Your task to perform on an android device: Set the phone to "Do not disturb". Image 0: 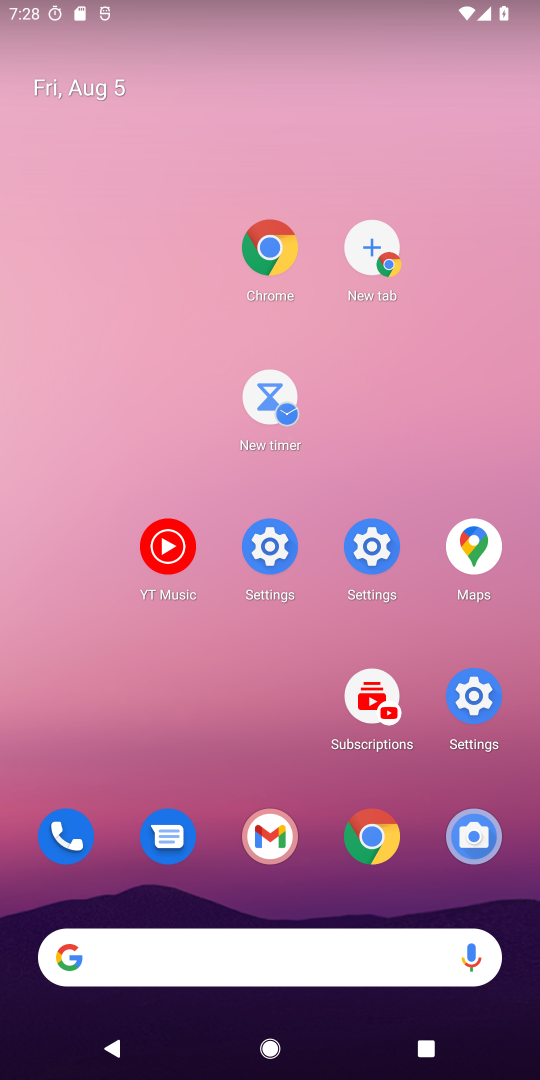
Step 0: click (520, 832)
Your task to perform on an android device: Set the phone to "Do not disturb". Image 1: 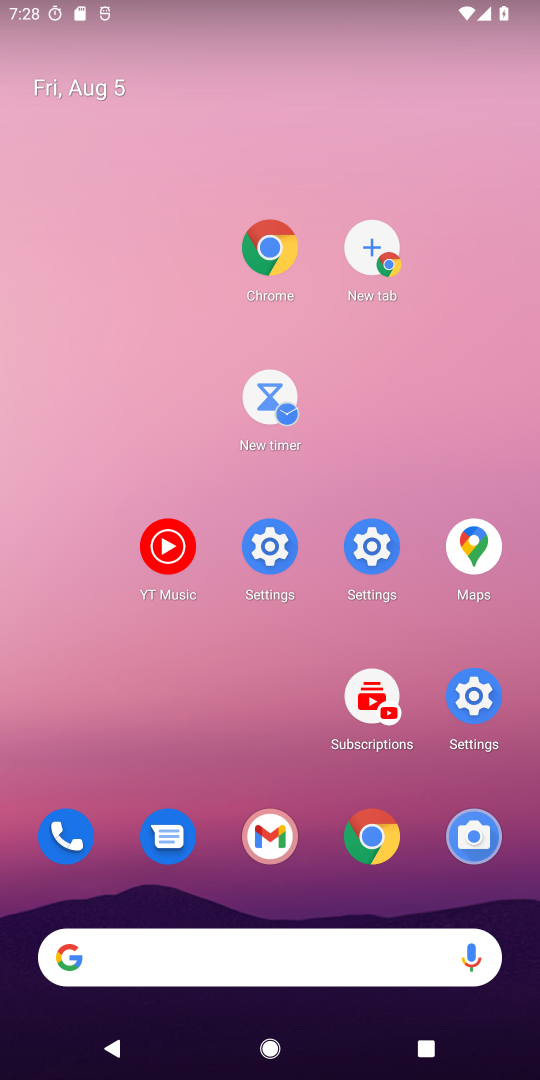
Step 1: drag from (125, 587) to (45, 345)
Your task to perform on an android device: Set the phone to "Do not disturb". Image 2: 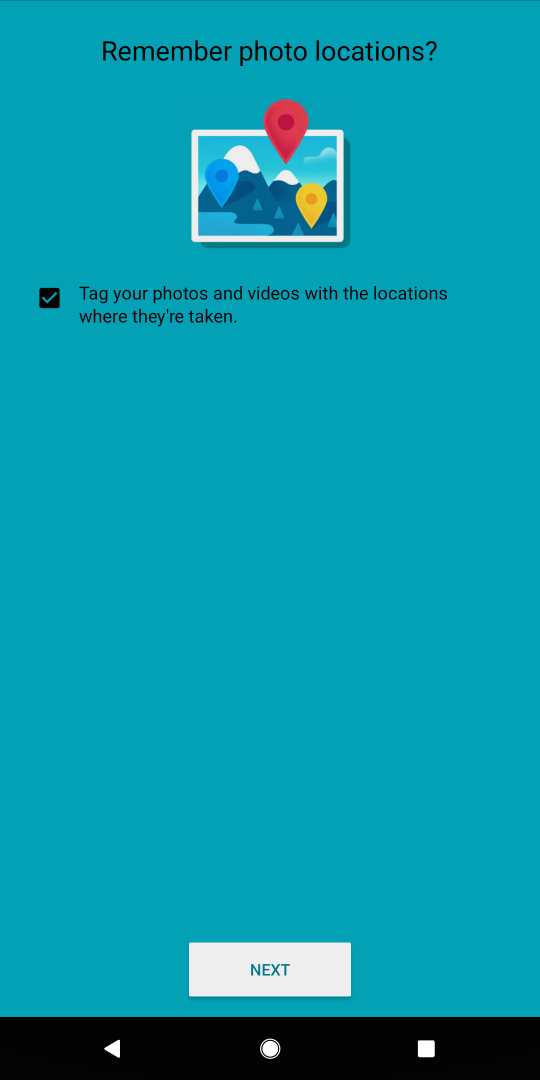
Step 2: drag from (242, 720) to (180, 190)
Your task to perform on an android device: Set the phone to "Do not disturb". Image 3: 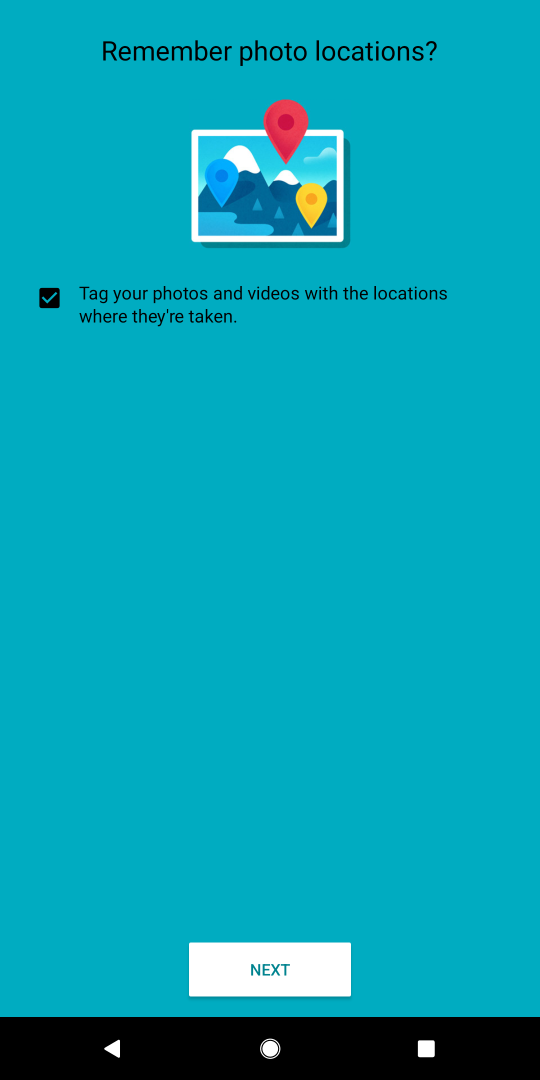
Step 3: press back button
Your task to perform on an android device: Set the phone to "Do not disturb". Image 4: 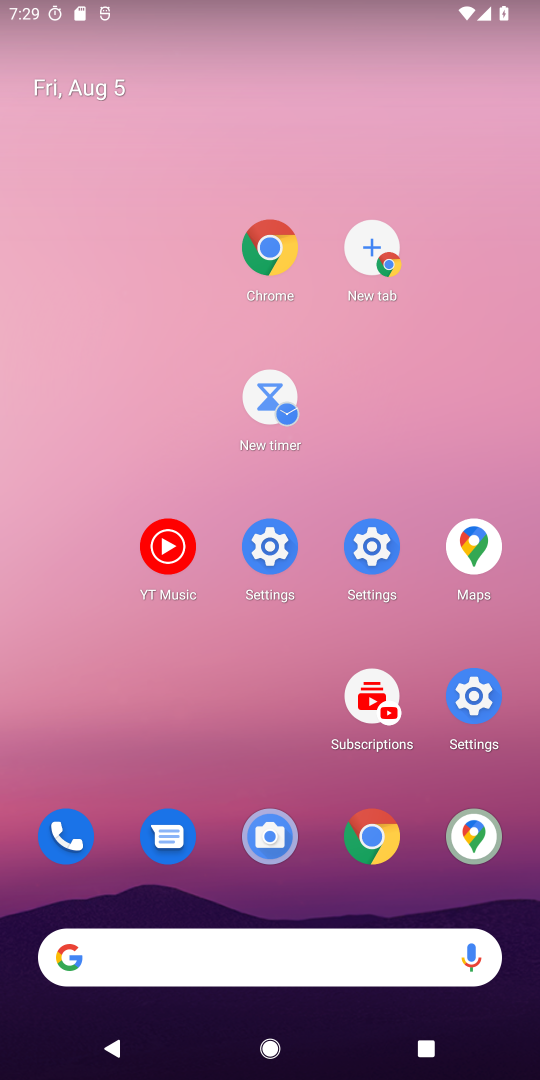
Step 4: drag from (183, 794) to (34, 153)
Your task to perform on an android device: Set the phone to "Do not disturb". Image 5: 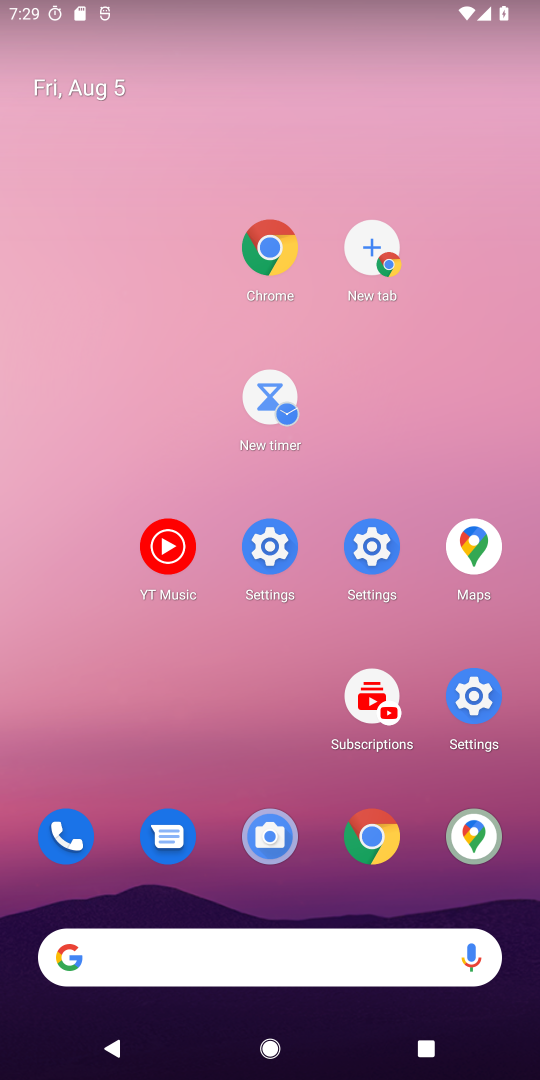
Step 5: drag from (230, 898) to (138, 362)
Your task to perform on an android device: Set the phone to "Do not disturb". Image 6: 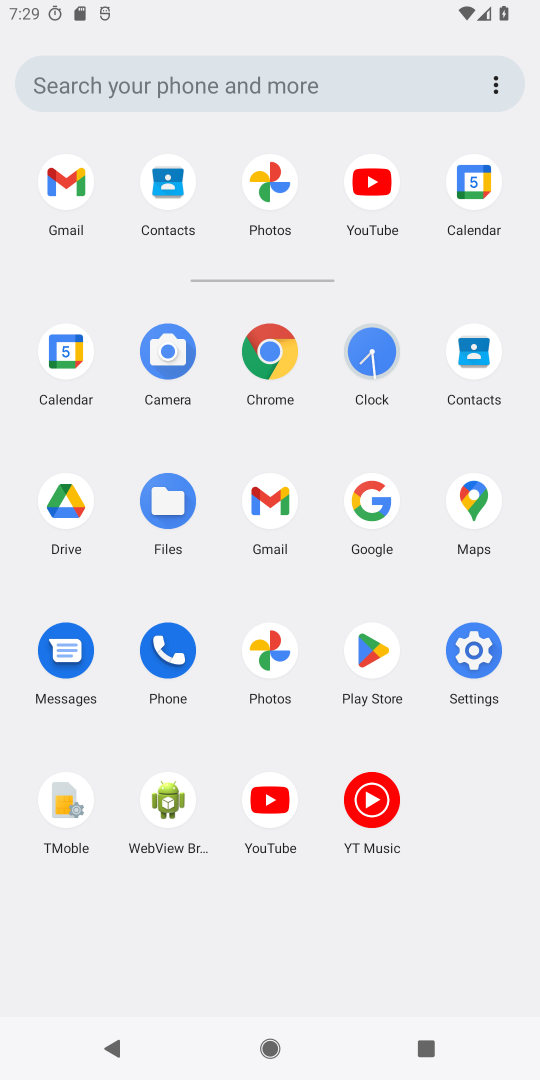
Step 6: click (467, 658)
Your task to perform on an android device: Set the phone to "Do not disturb". Image 7: 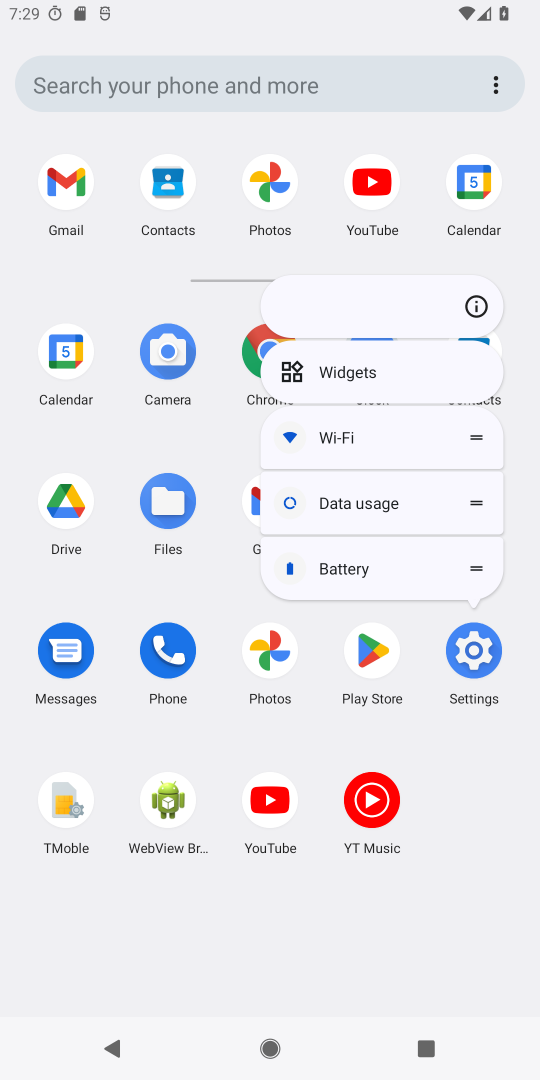
Step 7: click (467, 658)
Your task to perform on an android device: Set the phone to "Do not disturb". Image 8: 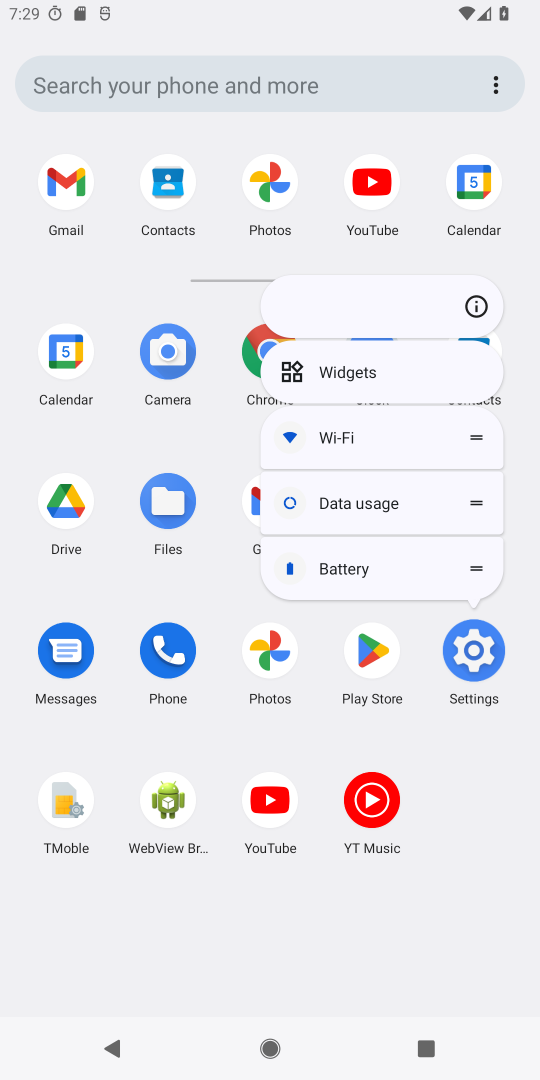
Step 8: click (469, 658)
Your task to perform on an android device: Set the phone to "Do not disturb". Image 9: 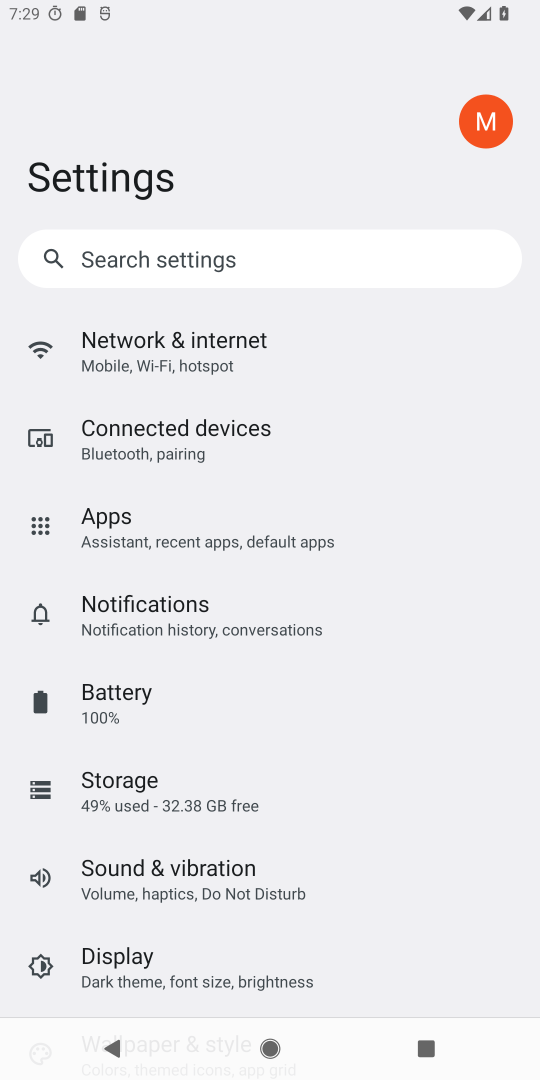
Step 9: drag from (169, 833) to (113, 403)
Your task to perform on an android device: Set the phone to "Do not disturb". Image 10: 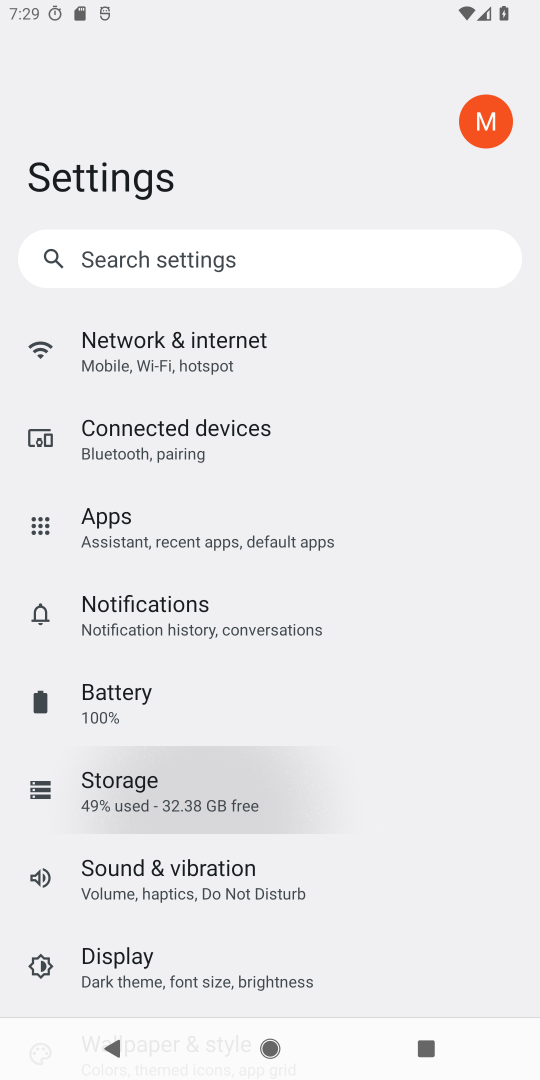
Step 10: drag from (162, 727) to (180, 315)
Your task to perform on an android device: Set the phone to "Do not disturb". Image 11: 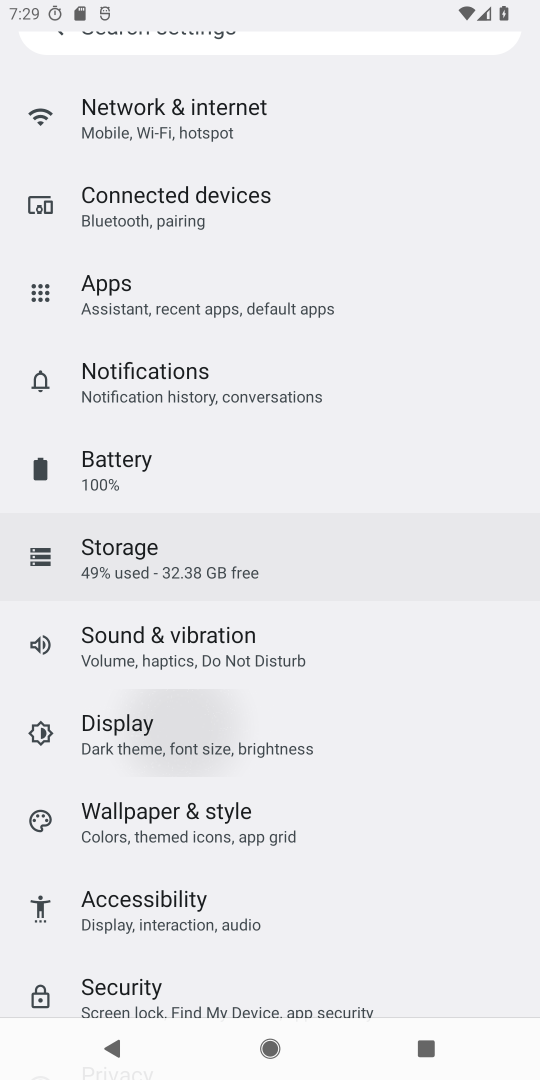
Step 11: drag from (212, 596) to (212, 232)
Your task to perform on an android device: Set the phone to "Do not disturb". Image 12: 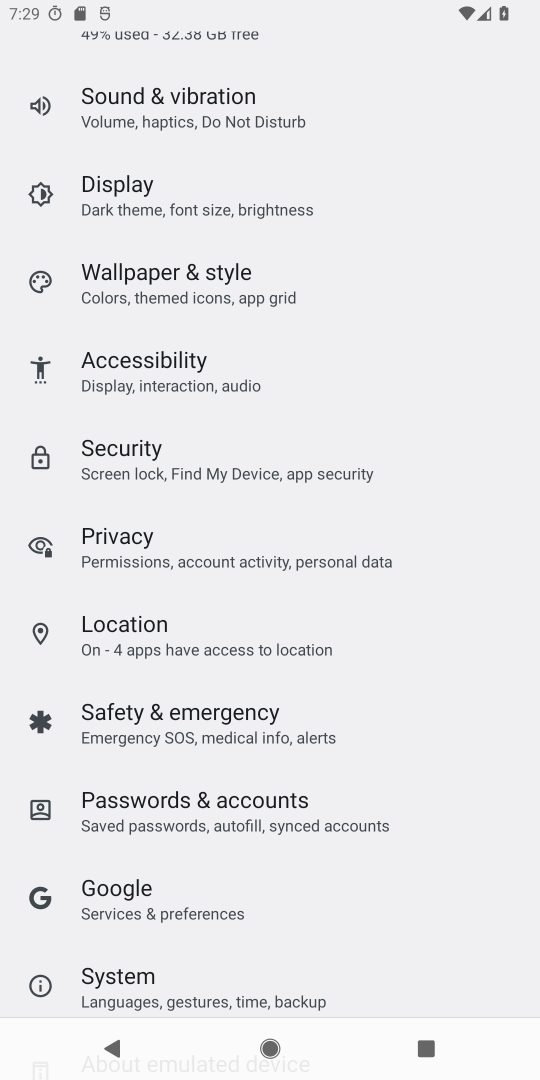
Step 12: drag from (295, 733) to (207, 298)
Your task to perform on an android device: Set the phone to "Do not disturb". Image 13: 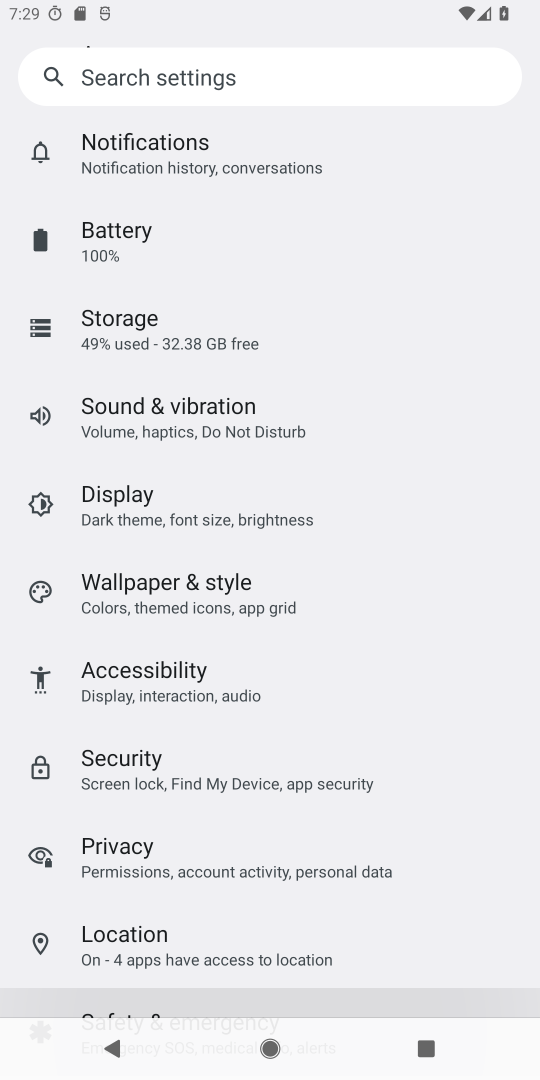
Step 13: drag from (233, 658) to (233, 188)
Your task to perform on an android device: Set the phone to "Do not disturb". Image 14: 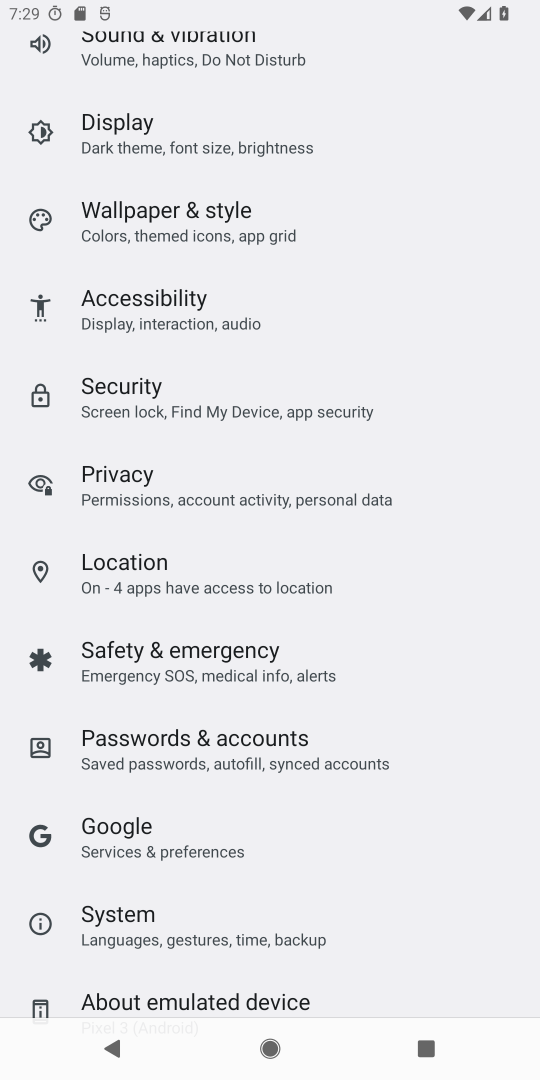
Step 14: drag from (229, 321) to (195, 190)
Your task to perform on an android device: Set the phone to "Do not disturb". Image 15: 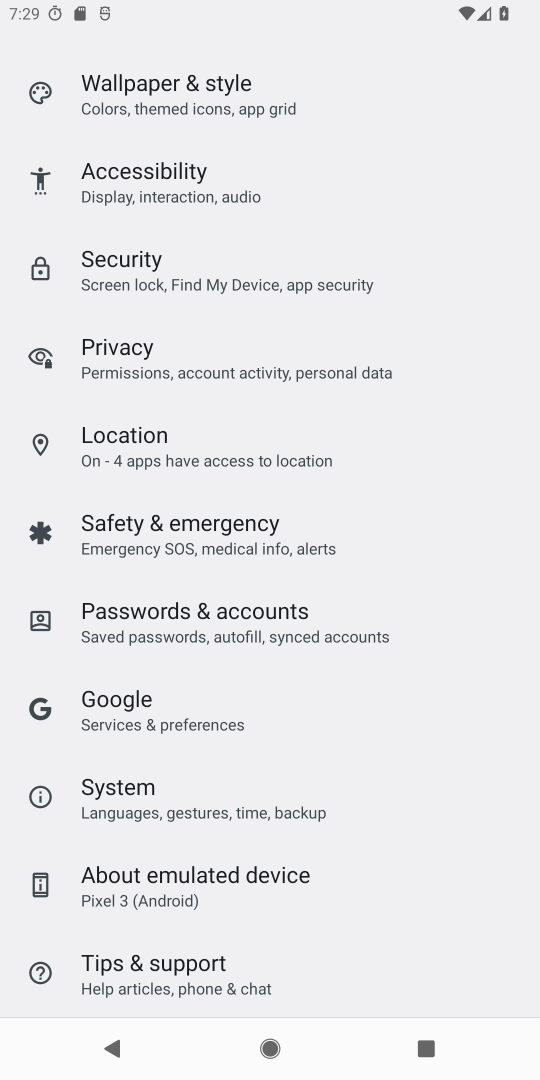
Step 15: drag from (177, 503) to (107, 215)
Your task to perform on an android device: Set the phone to "Do not disturb". Image 16: 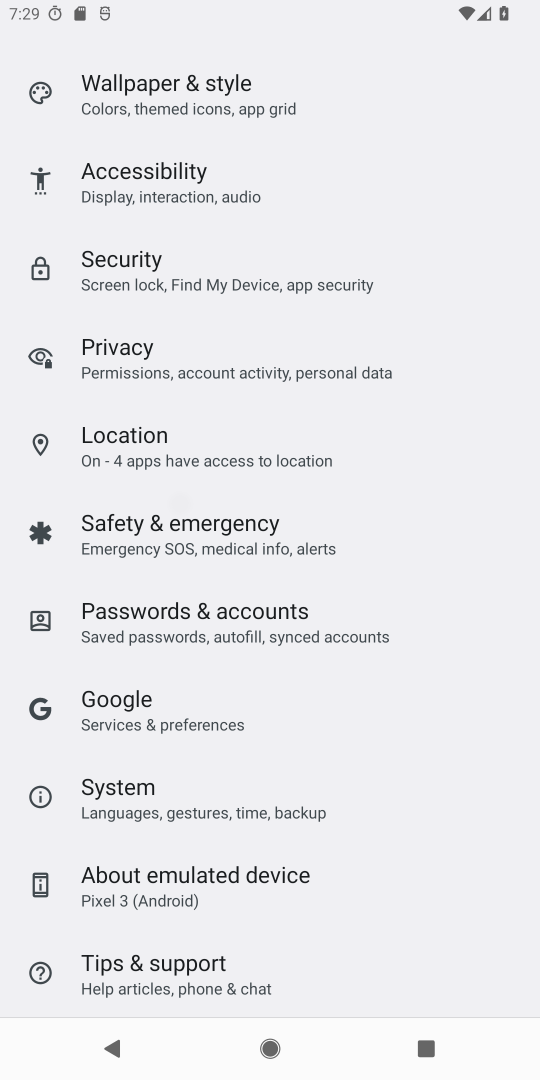
Step 16: drag from (218, 811) to (179, 344)
Your task to perform on an android device: Set the phone to "Do not disturb". Image 17: 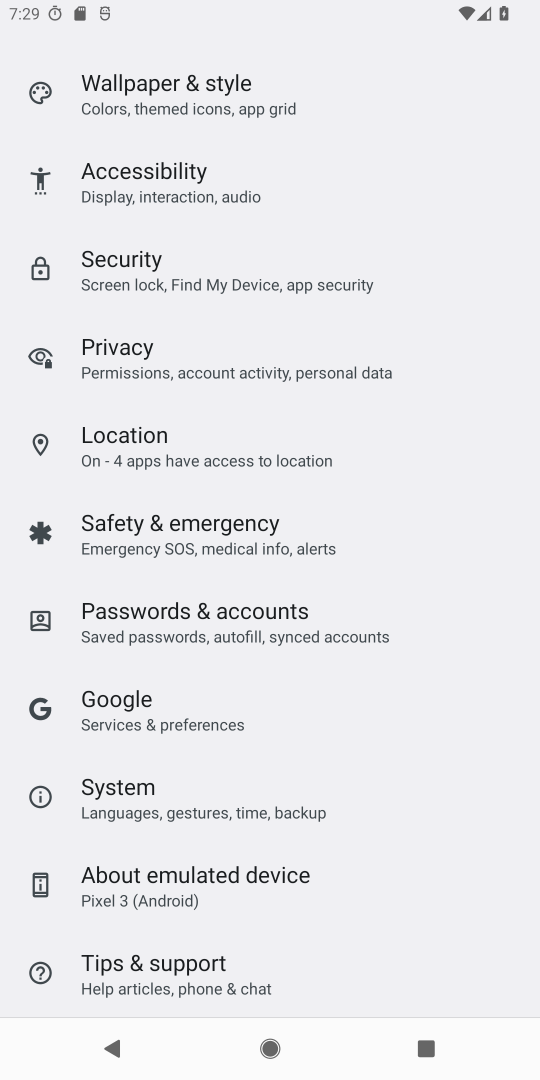
Step 17: drag from (208, 777) to (168, 340)
Your task to perform on an android device: Set the phone to "Do not disturb". Image 18: 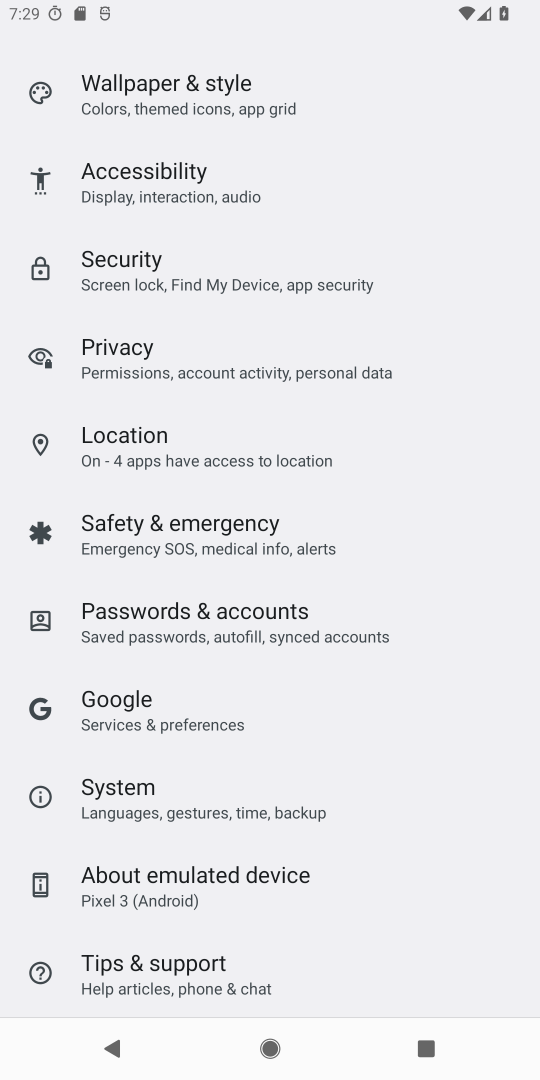
Step 18: drag from (164, 408) to (208, 747)
Your task to perform on an android device: Set the phone to "Do not disturb". Image 19: 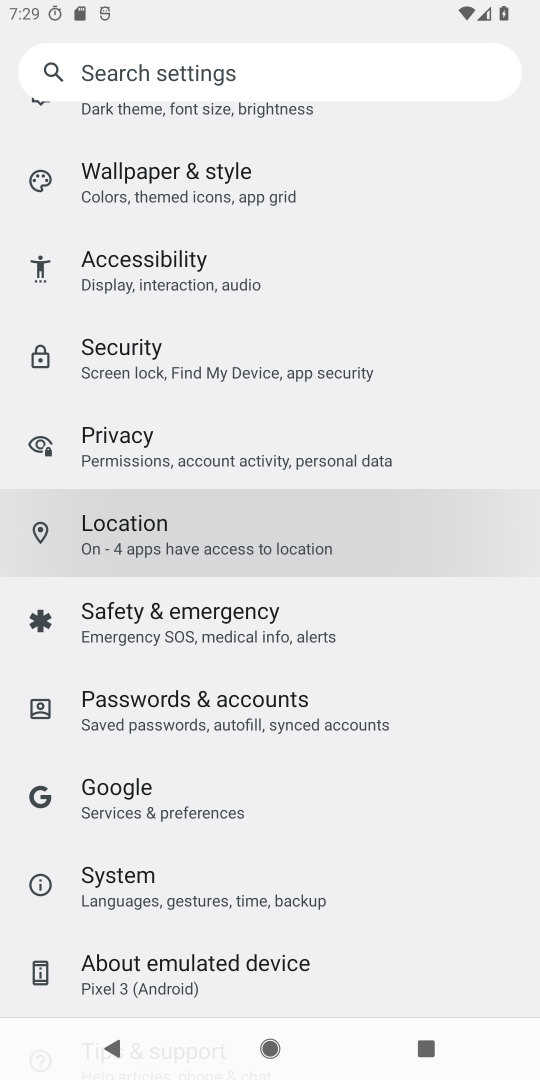
Step 19: drag from (156, 519) to (200, 797)
Your task to perform on an android device: Set the phone to "Do not disturb". Image 20: 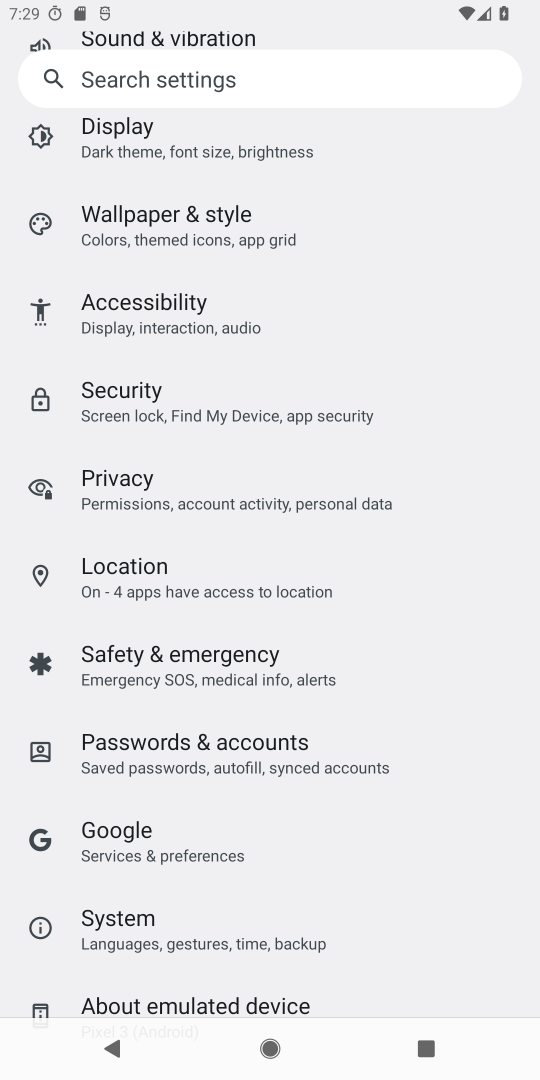
Step 20: drag from (179, 398) to (240, 886)
Your task to perform on an android device: Set the phone to "Do not disturb". Image 21: 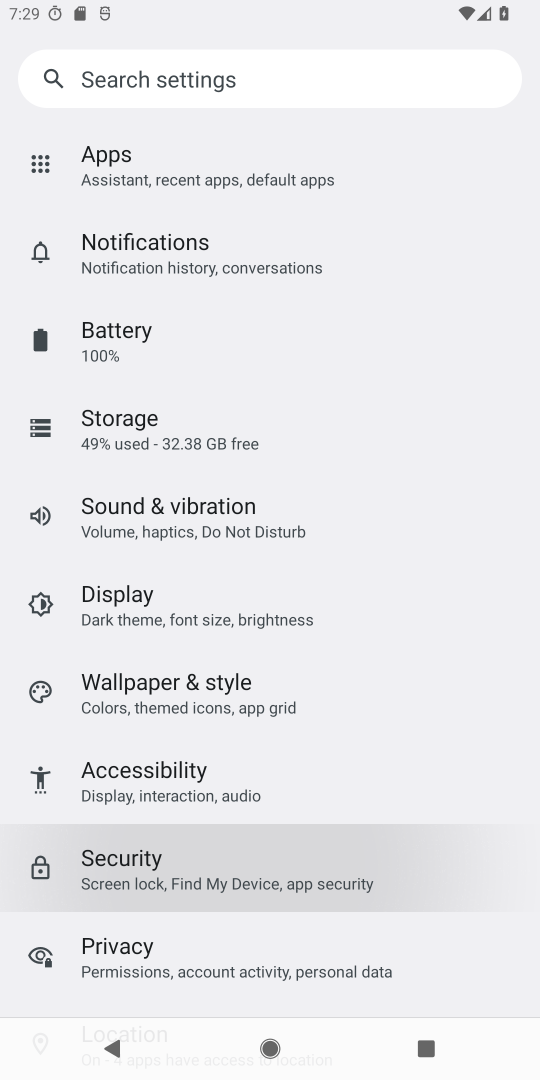
Step 21: drag from (145, 472) to (210, 904)
Your task to perform on an android device: Set the phone to "Do not disturb". Image 22: 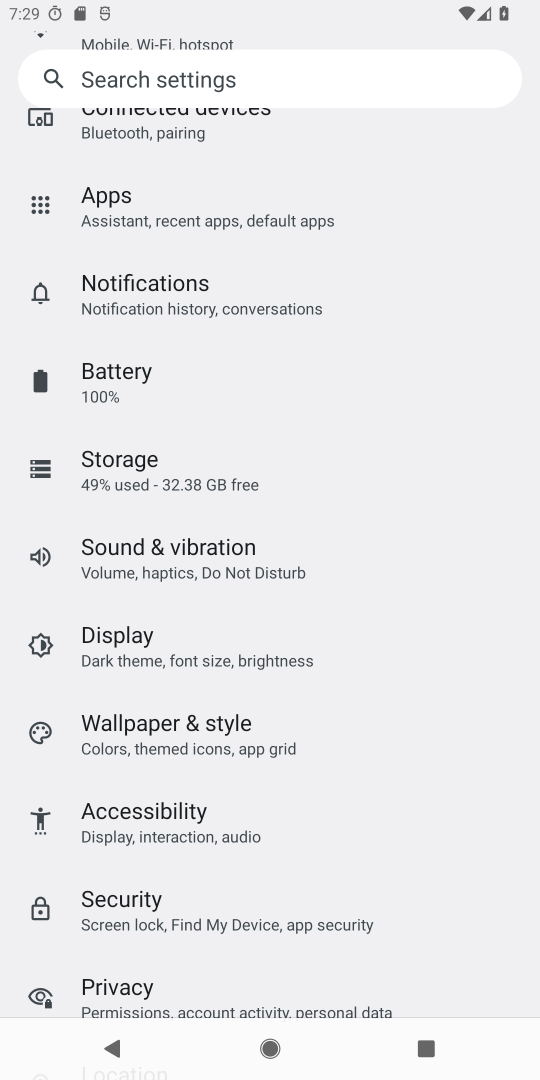
Step 22: drag from (155, 528) to (318, 959)
Your task to perform on an android device: Set the phone to "Do not disturb". Image 23: 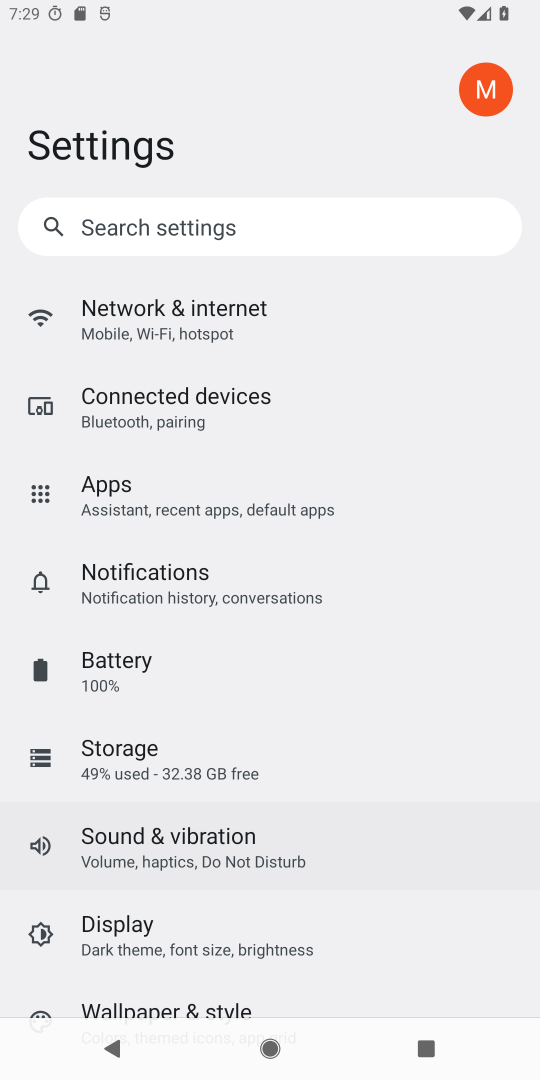
Step 23: drag from (236, 544) to (270, 778)
Your task to perform on an android device: Set the phone to "Do not disturb". Image 24: 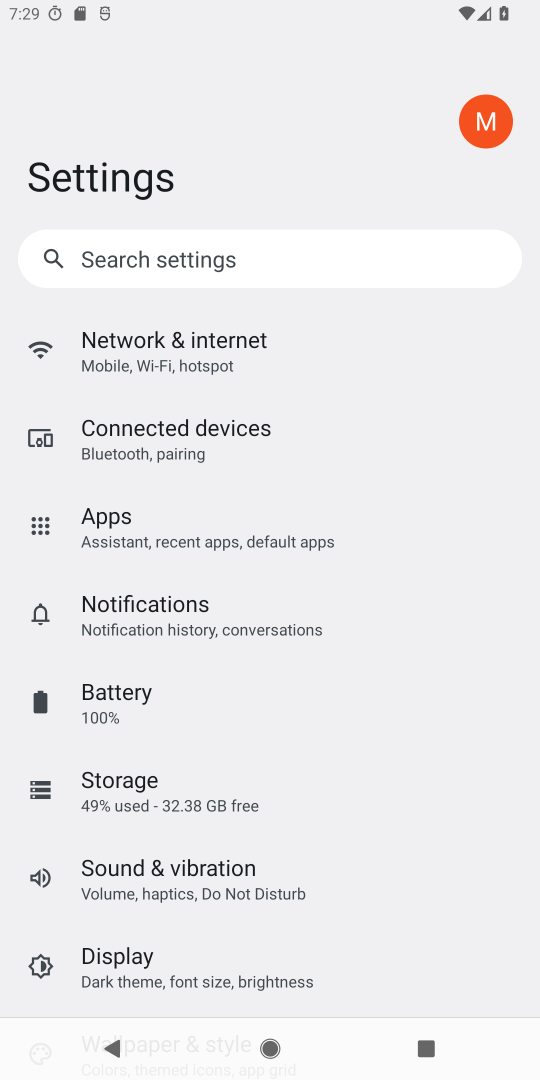
Step 24: drag from (228, 866) to (235, 529)
Your task to perform on an android device: Set the phone to "Do not disturb". Image 25: 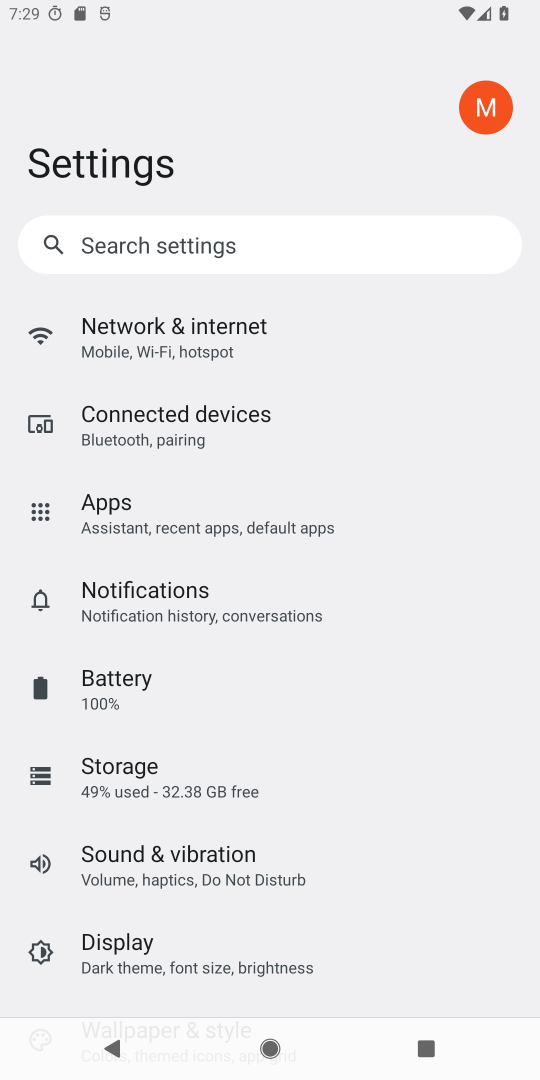
Step 25: drag from (196, 758) to (180, 382)
Your task to perform on an android device: Set the phone to "Do not disturb". Image 26: 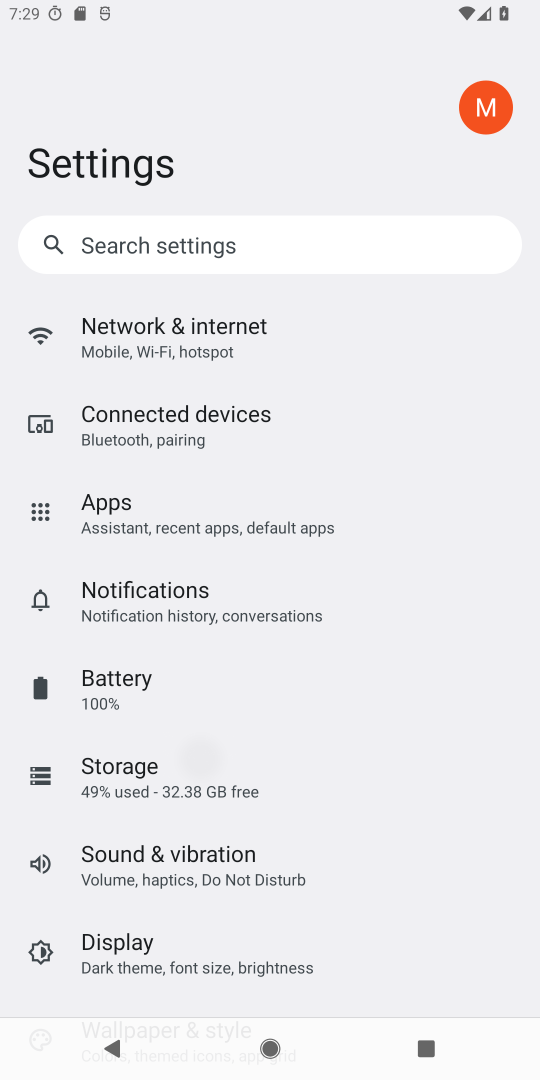
Step 26: drag from (201, 683) to (184, 452)
Your task to perform on an android device: Set the phone to "Do not disturb". Image 27: 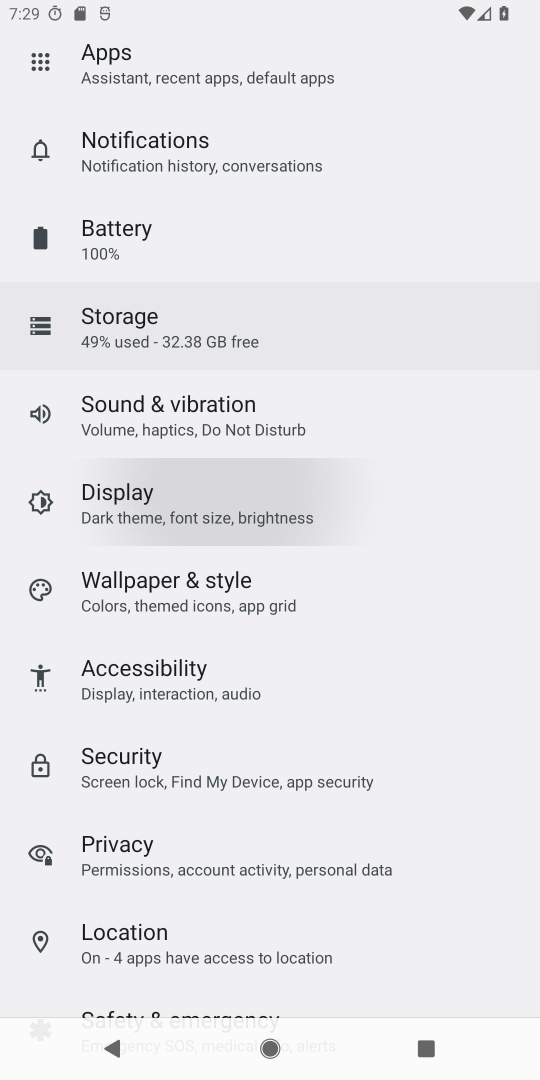
Step 27: drag from (273, 662) to (268, 362)
Your task to perform on an android device: Set the phone to "Do not disturb". Image 28: 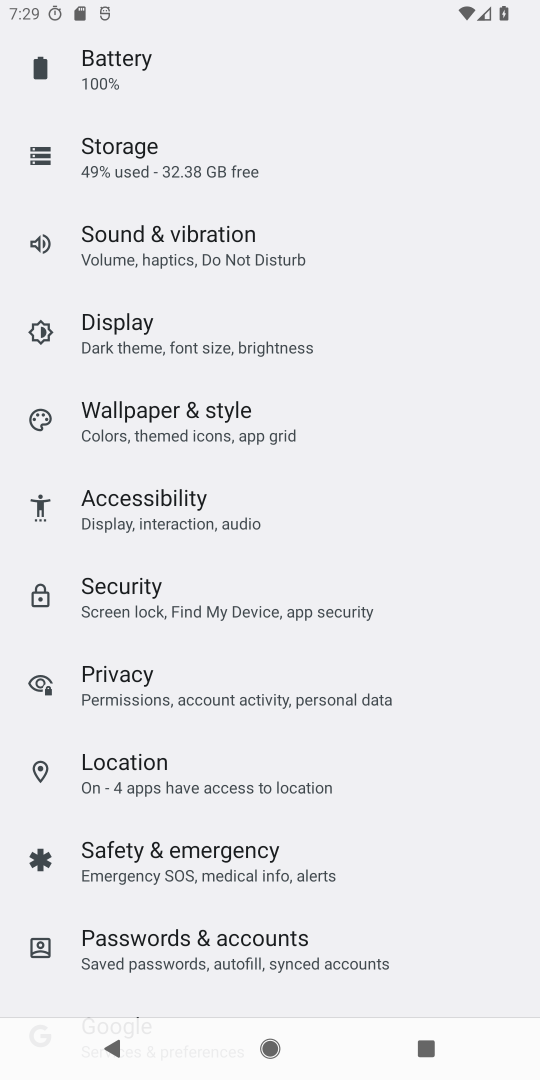
Step 28: drag from (310, 686) to (267, 416)
Your task to perform on an android device: Set the phone to "Do not disturb". Image 29: 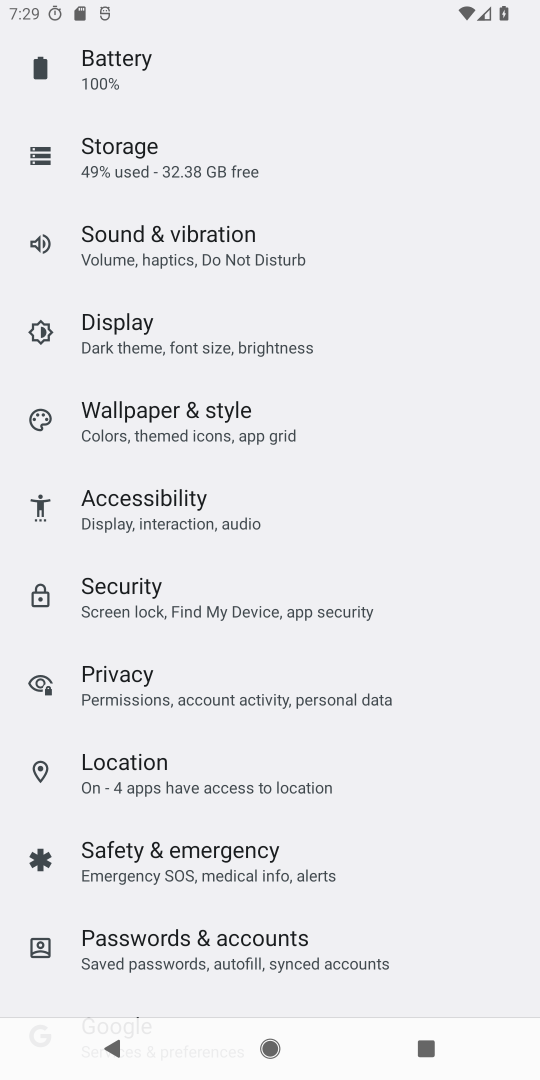
Step 29: drag from (249, 796) to (242, 359)
Your task to perform on an android device: Set the phone to "Do not disturb". Image 30: 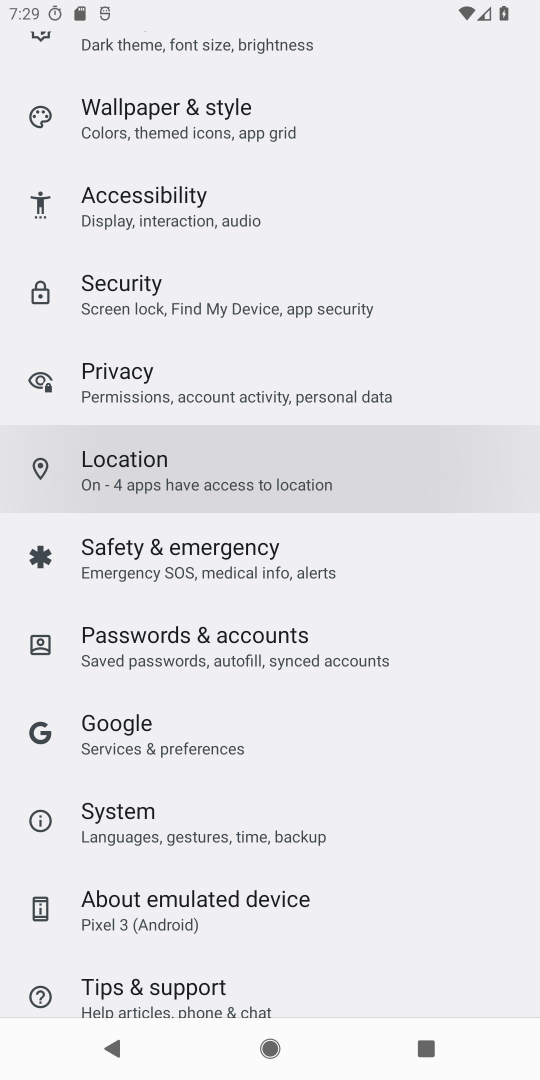
Step 30: drag from (250, 685) to (250, 334)
Your task to perform on an android device: Set the phone to "Do not disturb". Image 31: 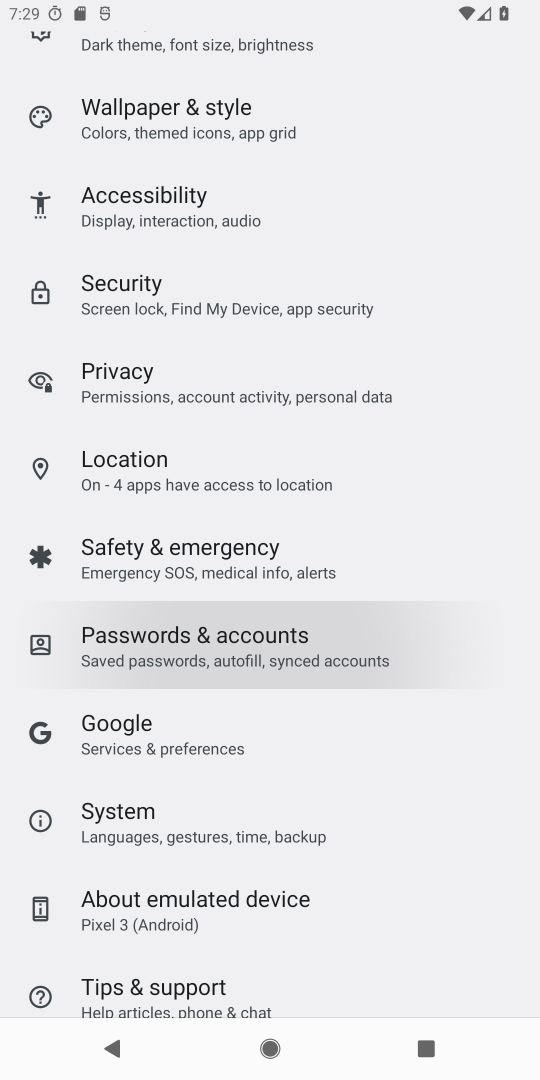
Step 31: drag from (261, 617) to (228, 413)
Your task to perform on an android device: Set the phone to "Do not disturb". Image 32: 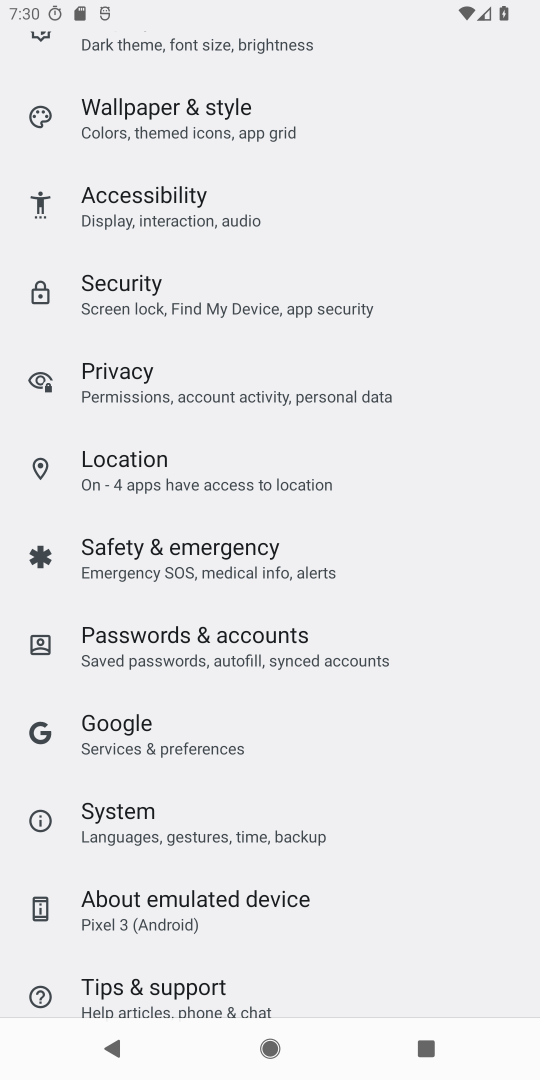
Step 32: drag from (177, 226) to (256, 713)
Your task to perform on an android device: Set the phone to "Do not disturb". Image 33: 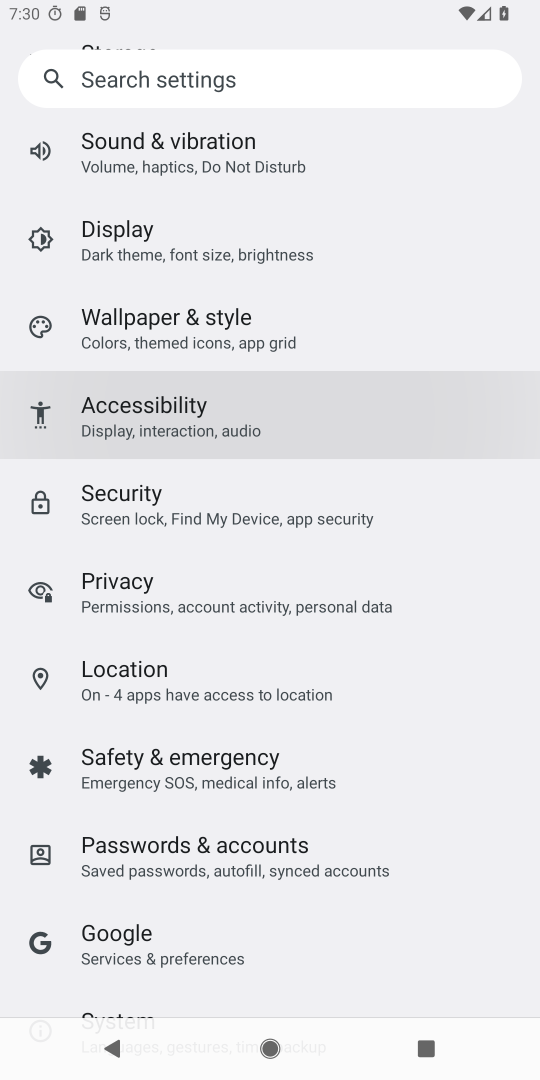
Step 33: drag from (166, 424) to (244, 764)
Your task to perform on an android device: Set the phone to "Do not disturb". Image 34: 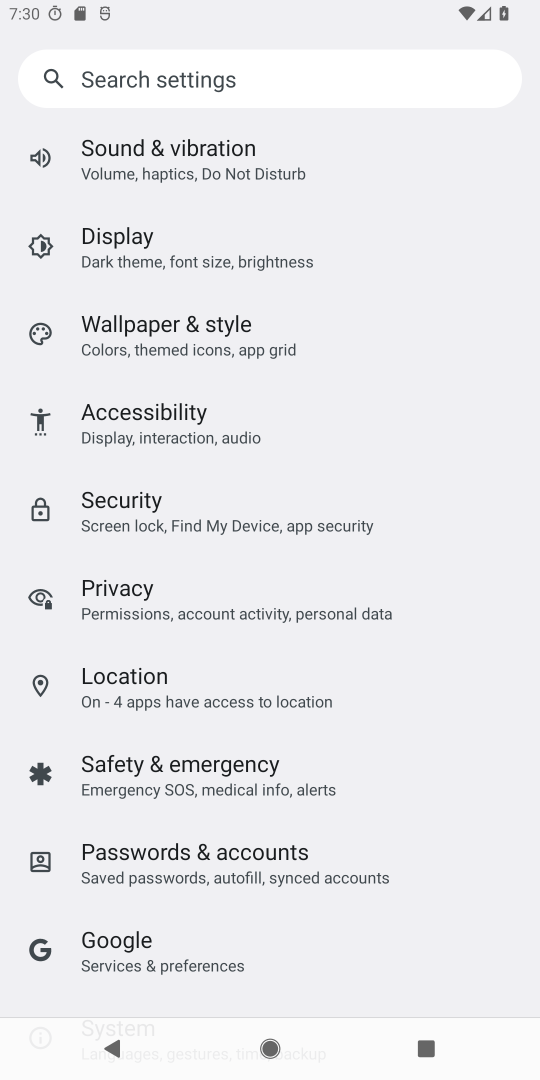
Step 34: click (130, 252)
Your task to perform on an android device: Set the phone to "Do not disturb". Image 35: 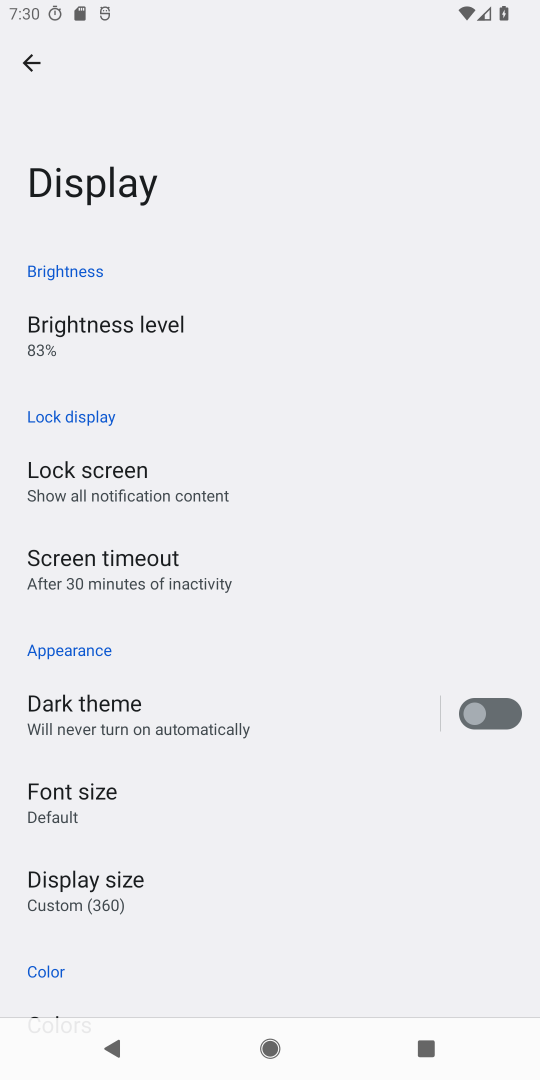
Step 35: drag from (146, 613) to (126, 288)
Your task to perform on an android device: Set the phone to "Do not disturb". Image 36: 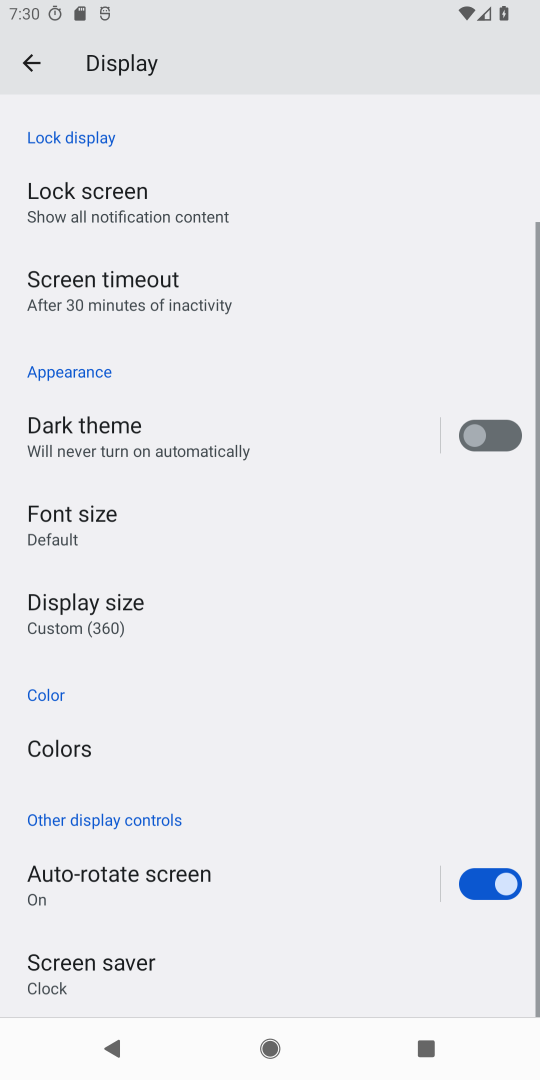
Step 36: drag from (56, 558) to (29, 358)
Your task to perform on an android device: Set the phone to "Do not disturb". Image 37: 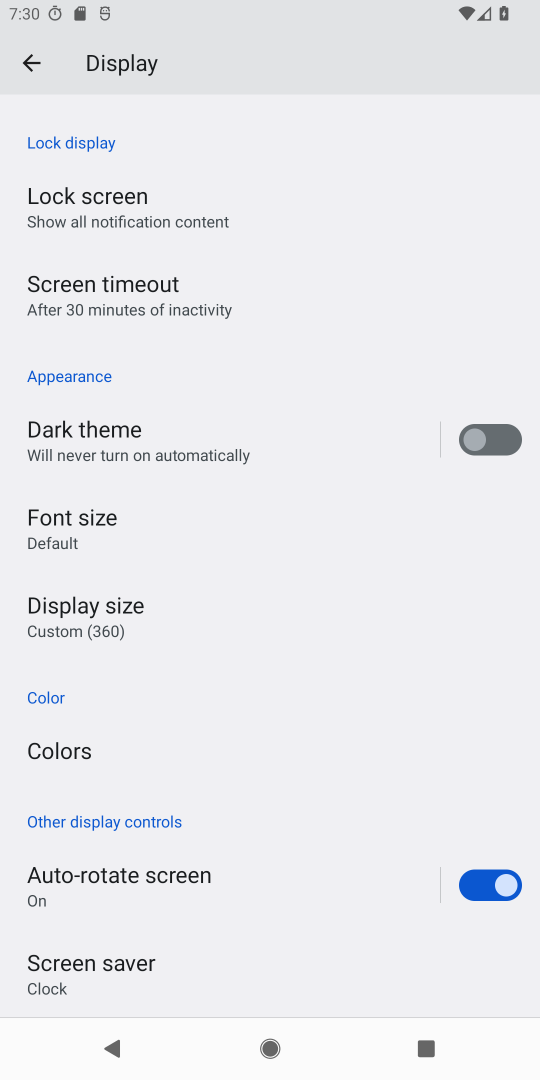
Step 37: click (40, 55)
Your task to perform on an android device: Set the phone to "Do not disturb". Image 38: 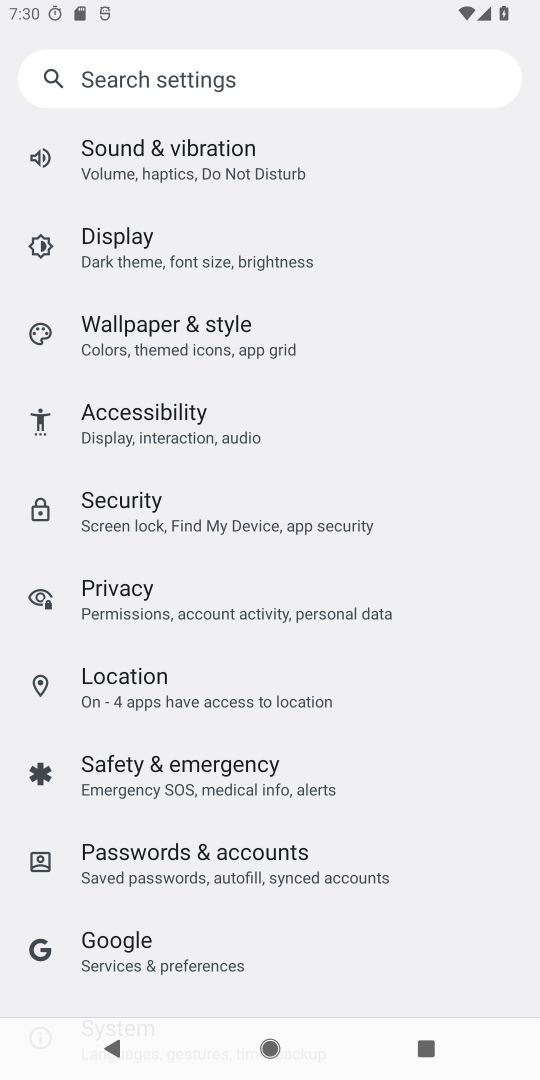
Step 38: drag from (207, 396) to (207, 685)
Your task to perform on an android device: Set the phone to "Do not disturb". Image 39: 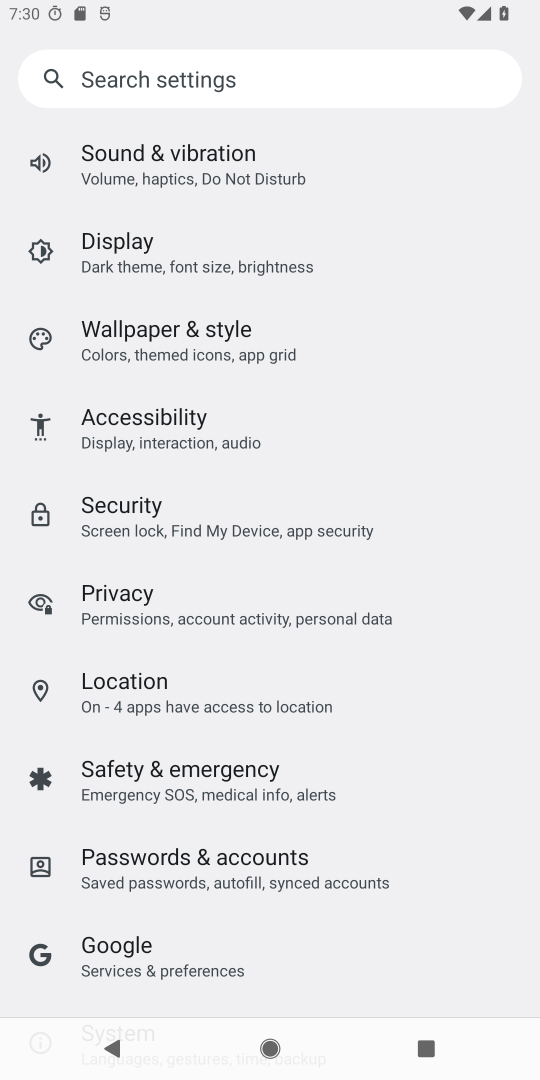
Step 39: click (182, 167)
Your task to perform on an android device: Set the phone to "Do not disturb". Image 40: 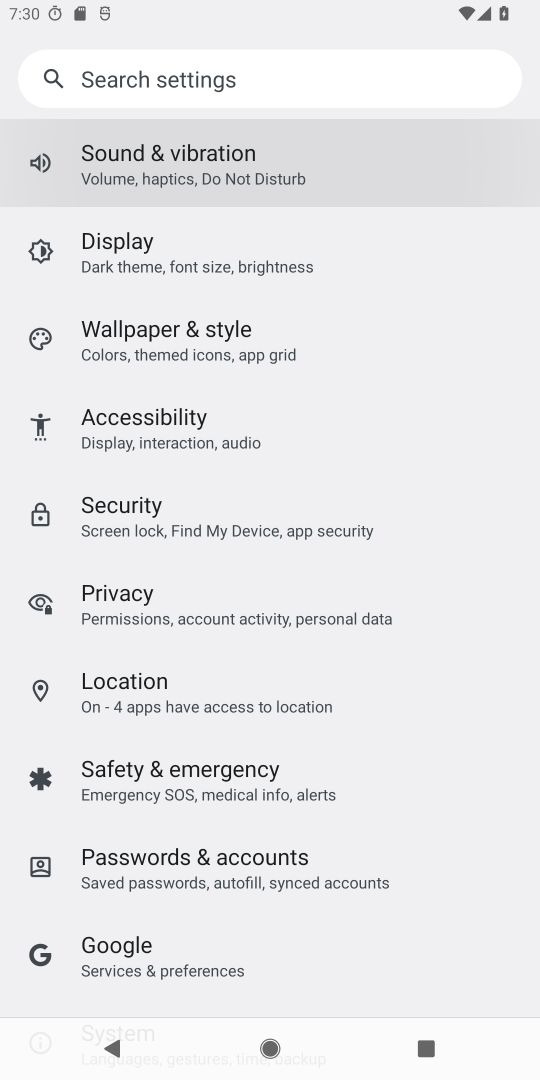
Step 40: click (182, 167)
Your task to perform on an android device: Set the phone to "Do not disturb". Image 41: 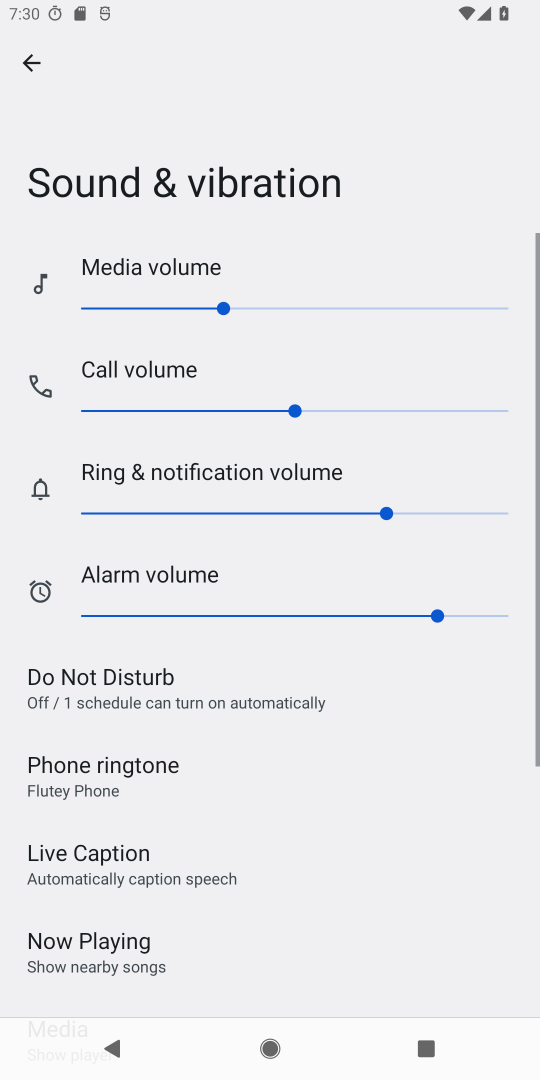
Step 41: click (217, 166)
Your task to perform on an android device: Set the phone to "Do not disturb". Image 42: 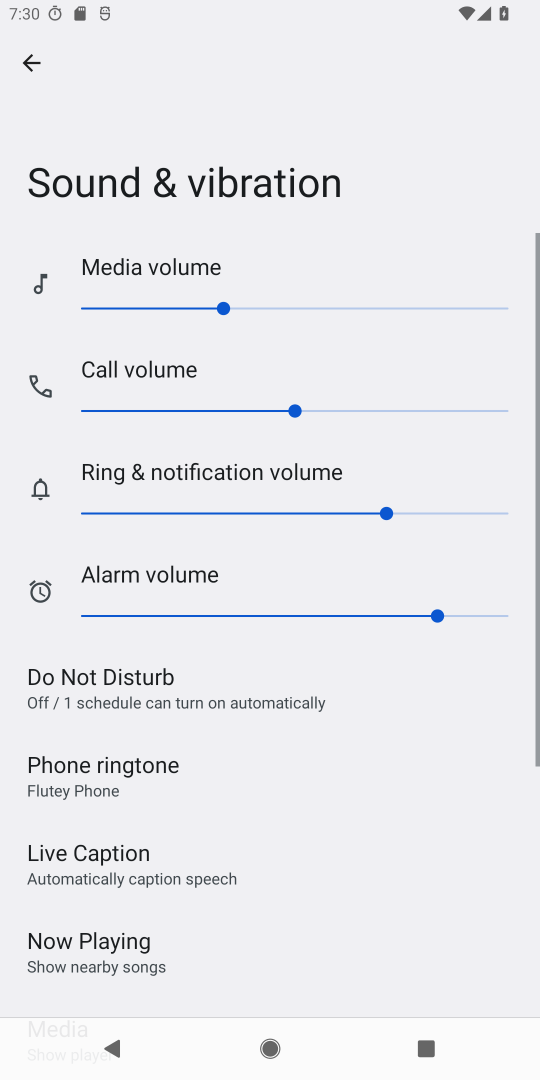
Step 42: click (217, 166)
Your task to perform on an android device: Set the phone to "Do not disturb". Image 43: 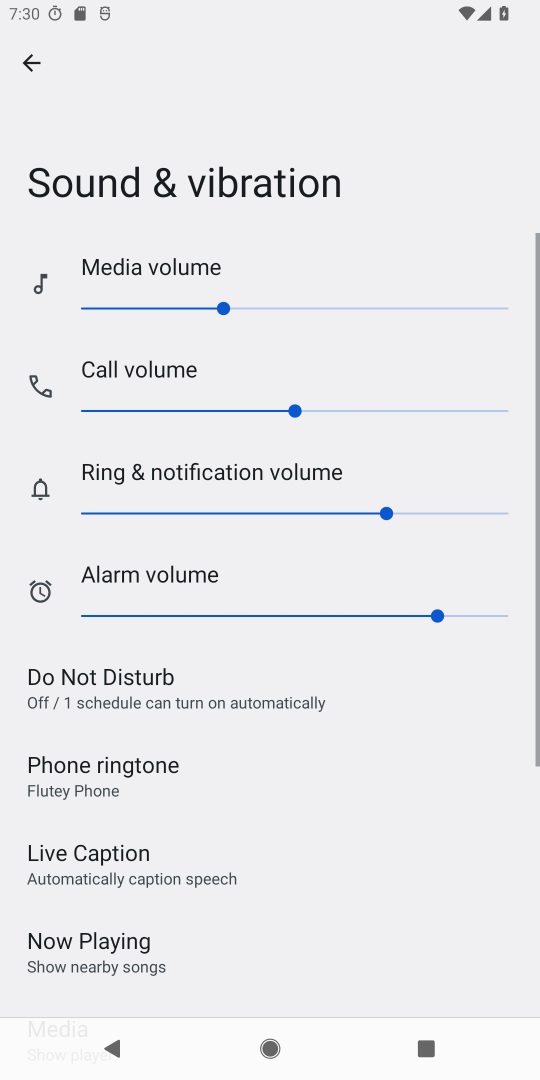
Step 43: task complete